Your task to perform on an android device: Show me productivity apps on the Play Store Image 0: 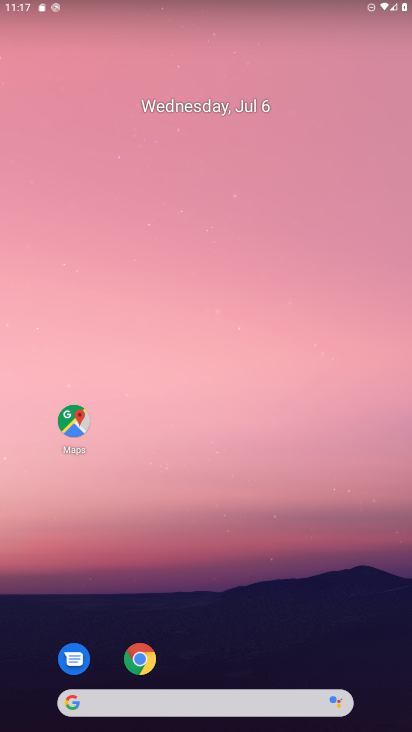
Step 0: drag from (180, 640) to (252, 17)
Your task to perform on an android device: Show me productivity apps on the Play Store Image 1: 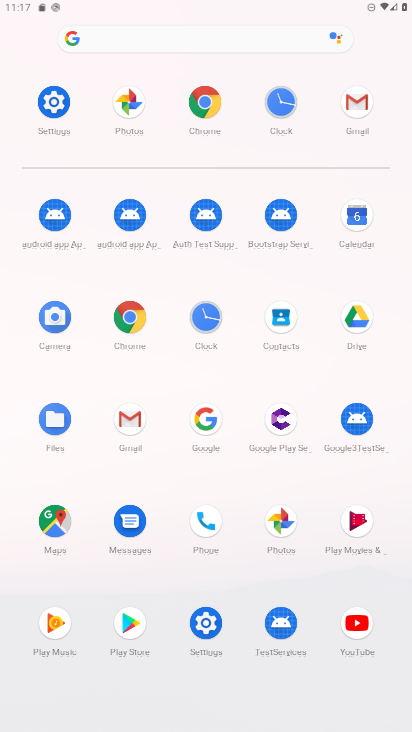
Step 1: click (127, 619)
Your task to perform on an android device: Show me productivity apps on the Play Store Image 2: 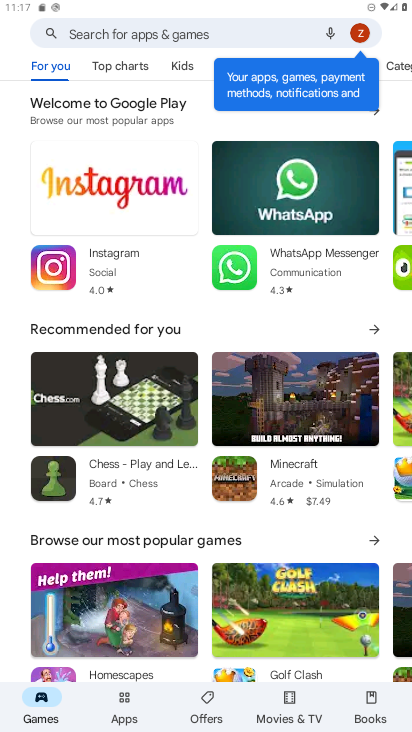
Step 2: click (131, 683)
Your task to perform on an android device: Show me productivity apps on the Play Store Image 3: 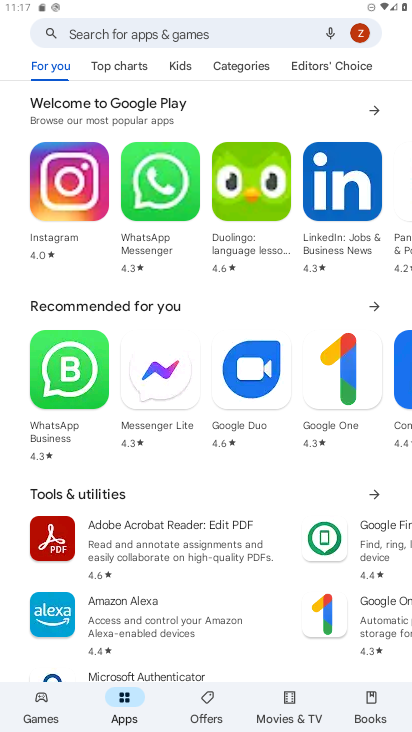
Step 3: drag from (182, 564) to (274, 5)
Your task to perform on an android device: Show me productivity apps on the Play Store Image 4: 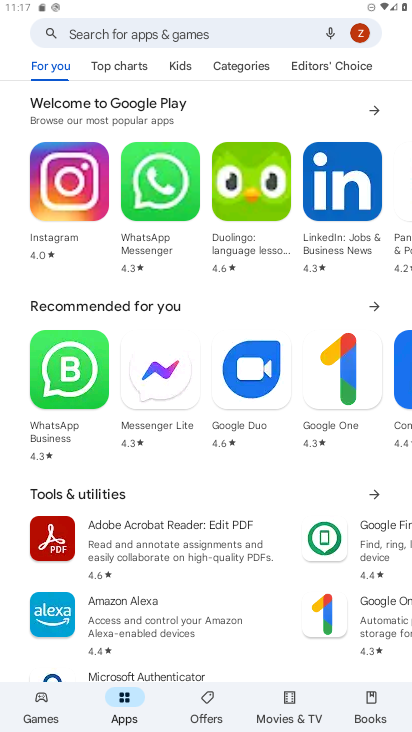
Step 4: drag from (186, 379) to (236, 0)
Your task to perform on an android device: Show me productivity apps on the Play Store Image 5: 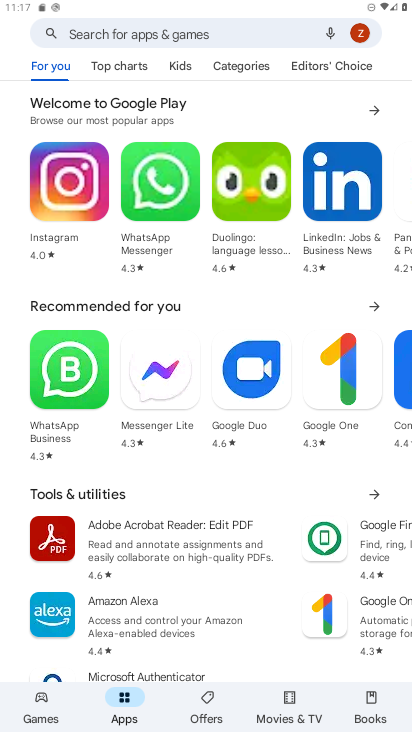
Step 5: drag from (218, 568) to (233, 48)
Your task to perform on an android device: Show me productivity apps on the Play Store Image 6: 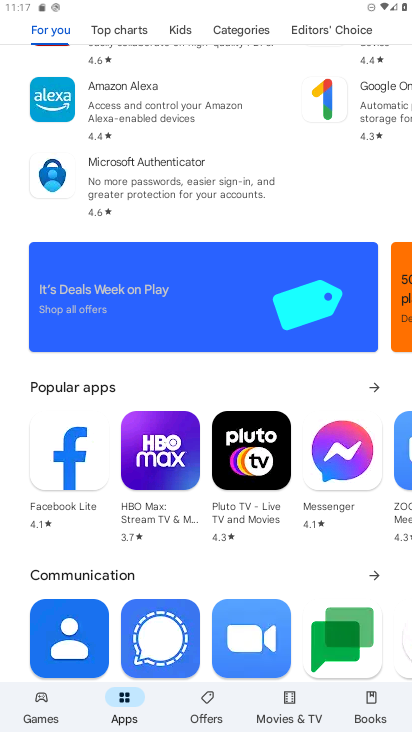
Step 6: drag from (198, 594) to (265, 37)
Your task to perform on an android device: Show me productivity apps on the Play Store Image 7: 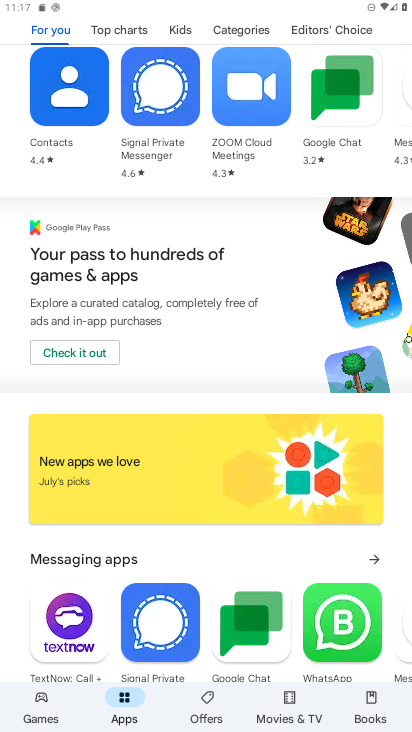
Step 7: drag from (239, 603) to (310, 7)
Your task to perform on an android device: Show me productivity apps on the Play Store Image 8: 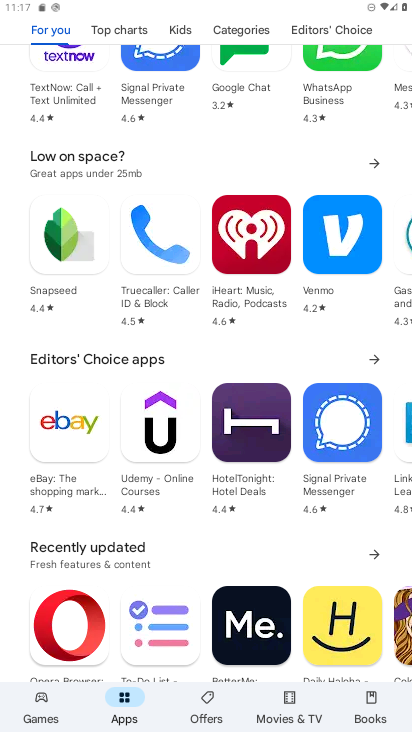
Step 8: drag from (222, 585) to (232, 145)
Your task to perform on an android device: Show me productivity apps on the Play Store Image 9: 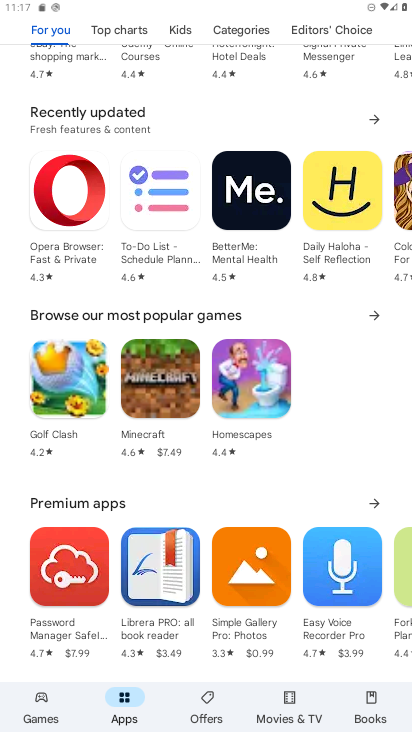
Step 9: drag from (257, 542) to (211, 87)
Your task to perform on an android device: Show me productivity apps on the Play Store Image 10: 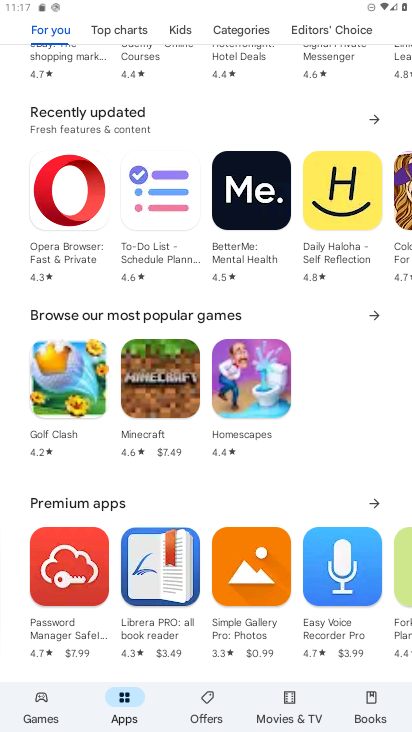
Step 10: drag from (216, 561) to (253, 114)
Your task to perform on an android device: Show me productivity apps on the Play Store Image 11: 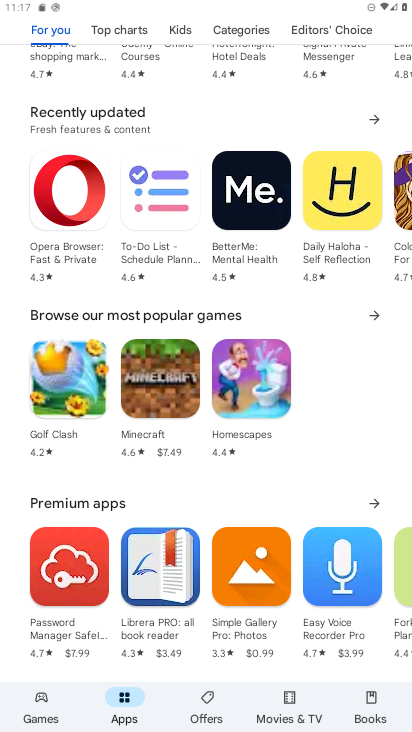
Step 11: drag from (347, 460) to (371, 4)
Your task to perform on an android device: Show me productivity apps on the Play Store Image 12: 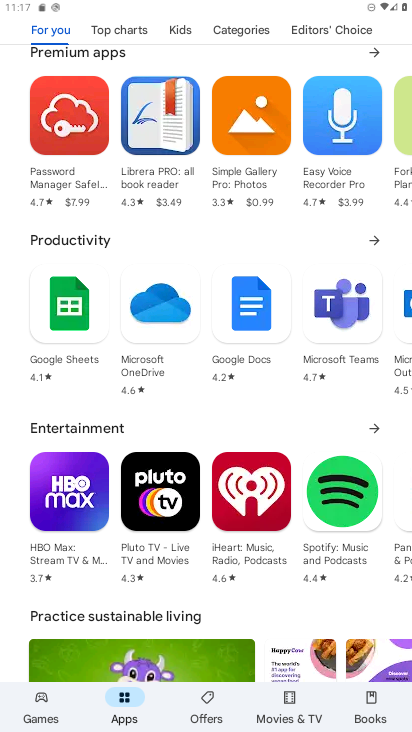
Step 12: click (376, 227)
Your task to perform on an android device: Show me productivity apps on the Play Store Image 13: 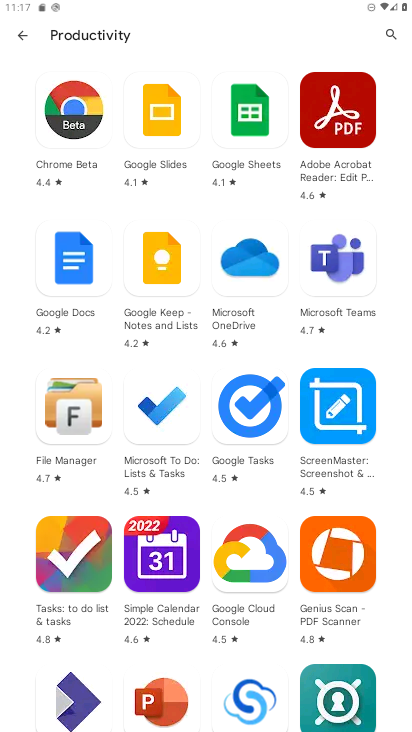
Step 13: task complete